Your task to perform on an android device: What is the news today? Image 0: 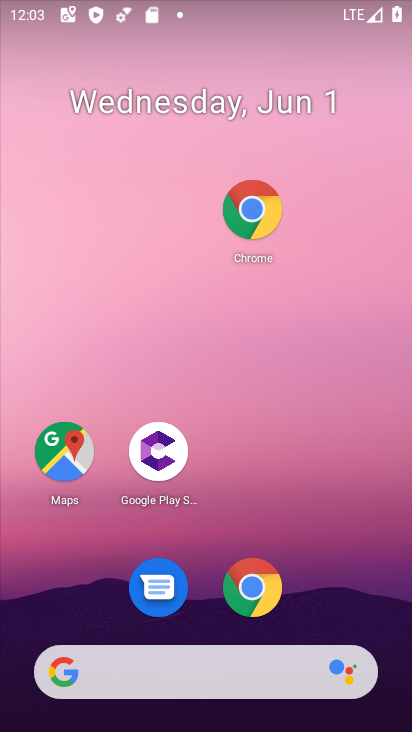
Step 0: drag from (29, 345) to (306, 318)
Your task to perform on an android device: What is the news today? Image 1: 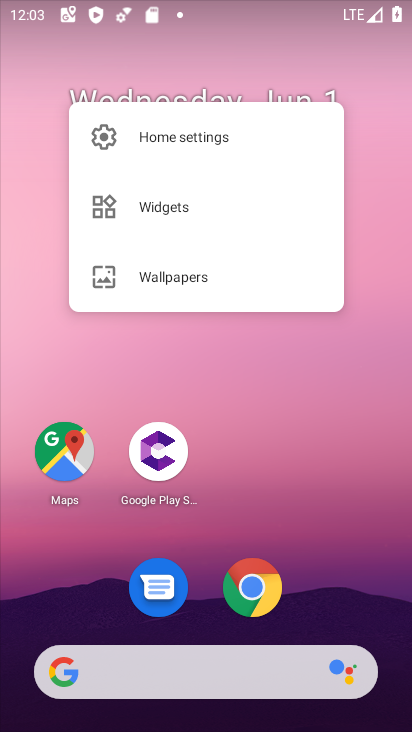
Step 1: task complete